Your task to perform on an android device: change the clock display to show seconds Image 0: 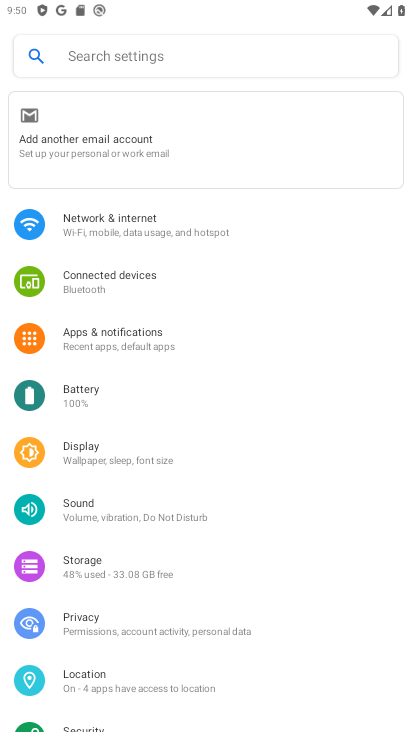
Step 0: press home button
Your task to perform on an android device: change the clock display to show seconds Image 1: 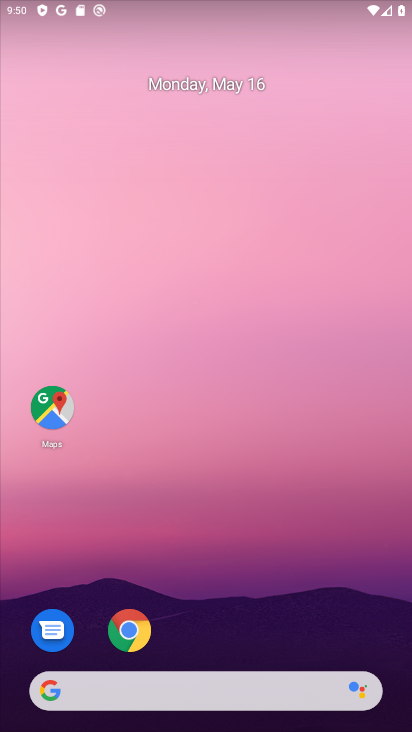
Step 1: drag from (227, 627) to (310, 7)
Your task to perform on an android device: change the clock display to show seconds Image 2: 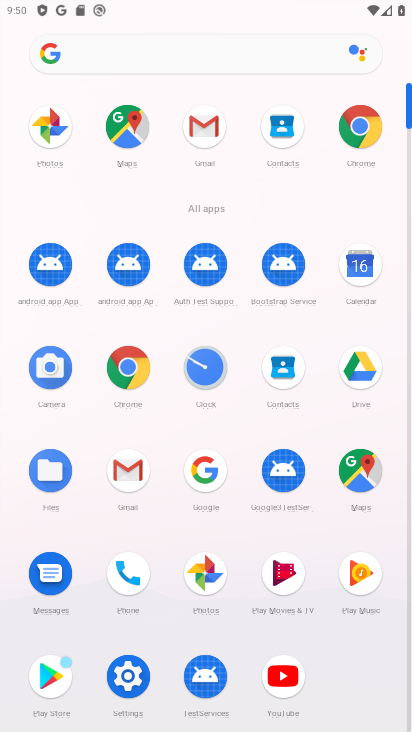
Step 2: click (213, 374)
Your task to perform on an android device: change the clock display to show seconds Image 3: 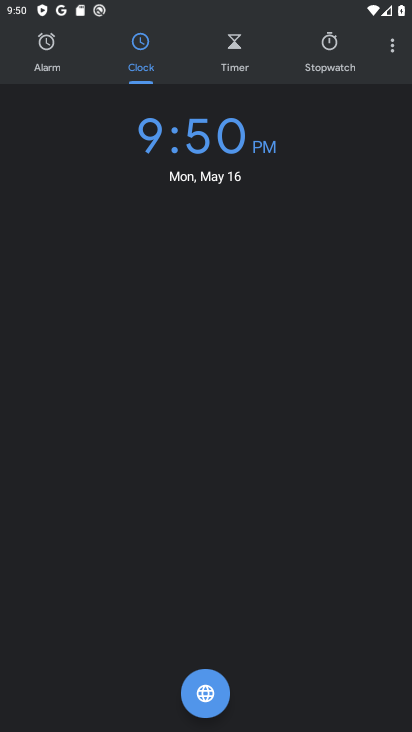
Step 3: click (390, 64)
Your task to perform on an android device: change the clock display to show seconds Image 4: 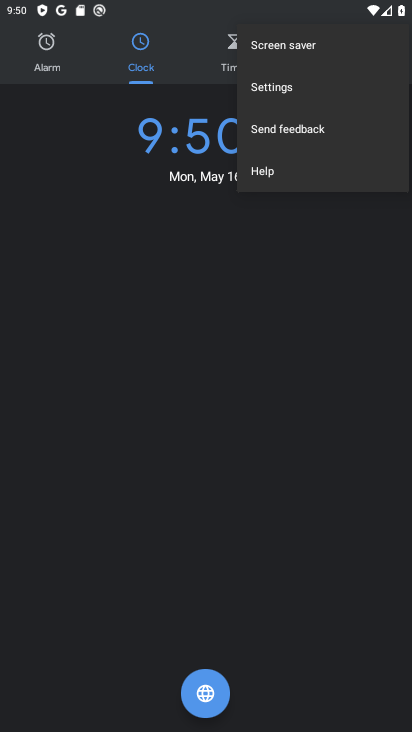
Step 4: click (279, 93)
Your task to perform on an android device: change the clock display to show seconds Image 5: 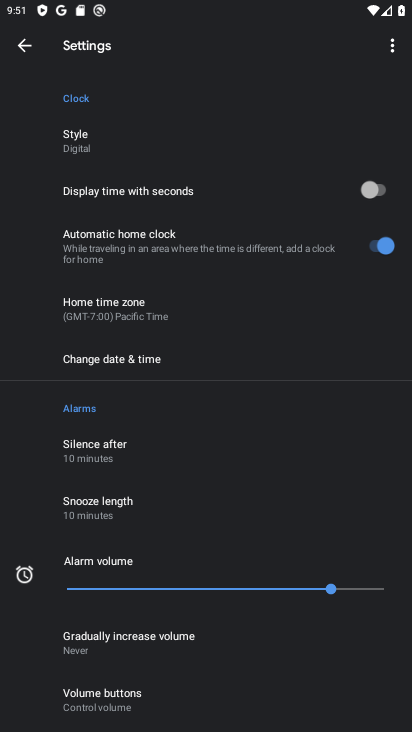
Step 5: click (102, 140)
Your task to perform on an android device: change the clock display to show seconds Image 6: 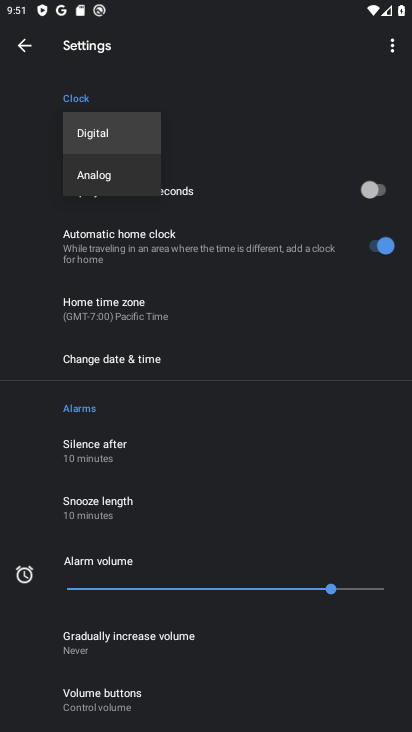
Step 6: click (114, 167)
Your task to perform on an android device: change the clock display to show seconds Image 7: 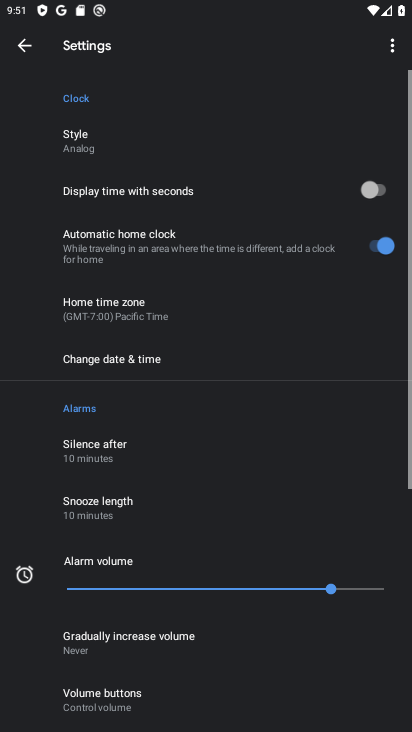
Step 7: click (385, 191)
Your task to perform on an android device: change the clock display to show seconds Image 8: 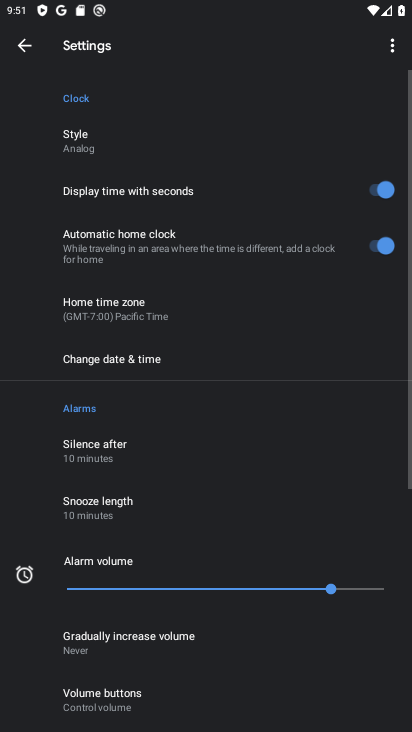
Step 8: task complete